Your task to perform on an android device: Go to CNN.com Image 0: 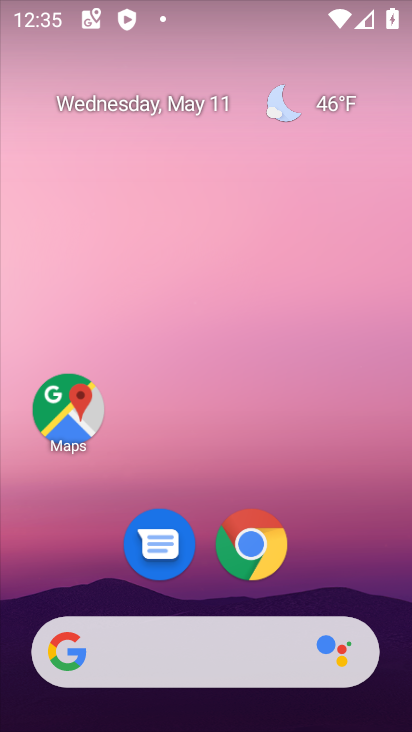
Step 0: click (252, 538)
Your task to perform on an android device: Go to CNN.com Image 1: 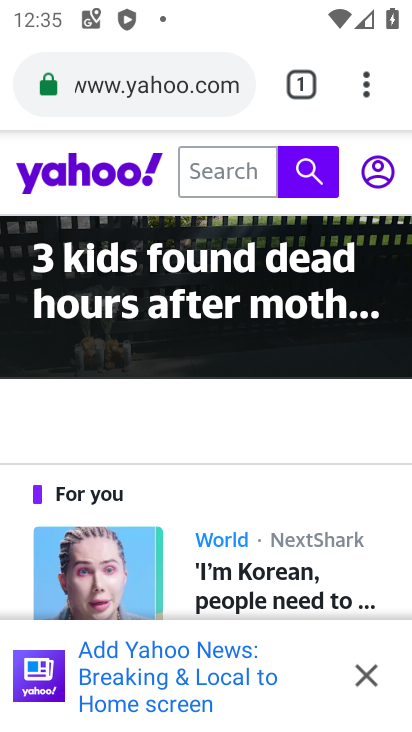
Step 1: click (104, 86)
Your task to perform on an android device: Go to CNN.com Image 2: 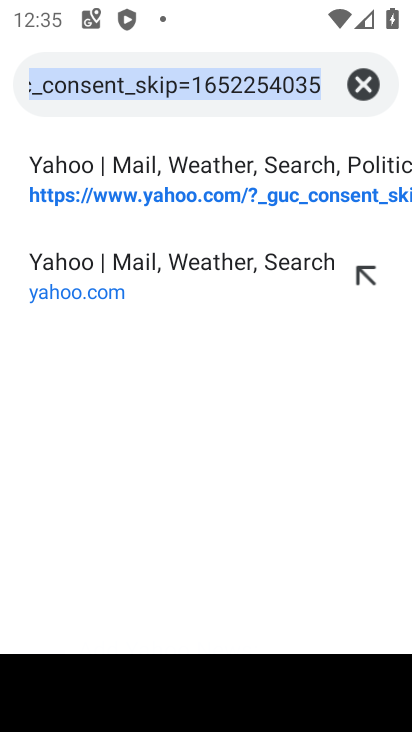
Step 2: click (366, 83)
Your task to perform on an android device: Go to CNN.com Image 3: 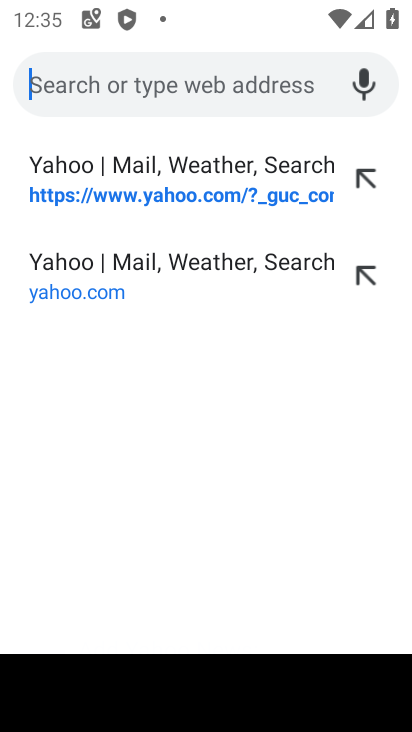
Step 3: type "cnn.com"
Your task to perform on an android device: Go to CNN.com Image 4: 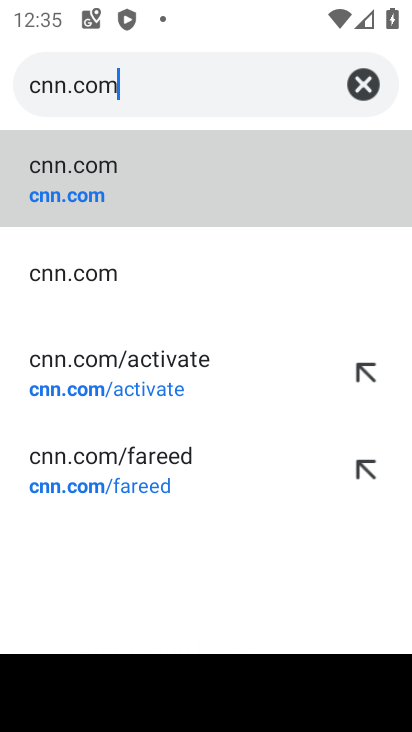
Step 4: click (62, 173)
Your task to perform on an android device: Go to CNN.com Image 5: 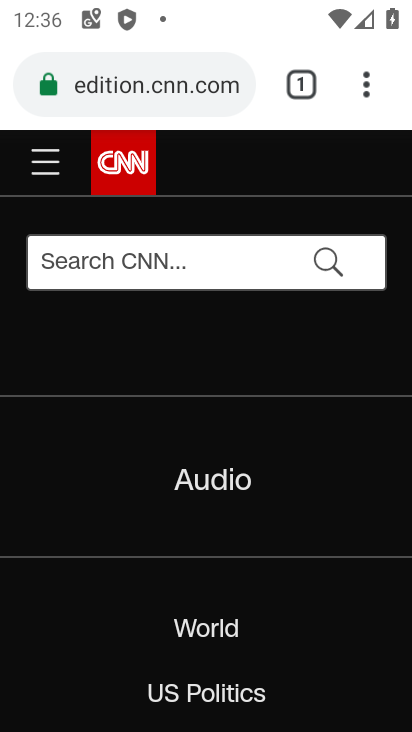
Step 5: task complete